Your task to perform on an android device: search for starred emails in the gmail app Image 0: 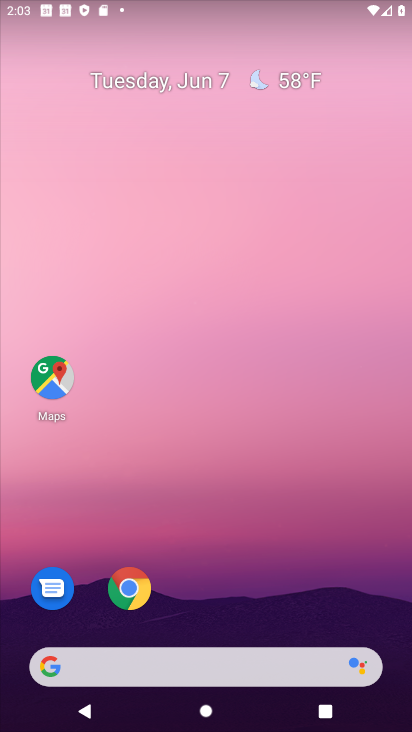
Step 0: drag from (293, 595) to (168, 179)
Your task to perform on an android device: search for starred emails in the gmail app Image 1: 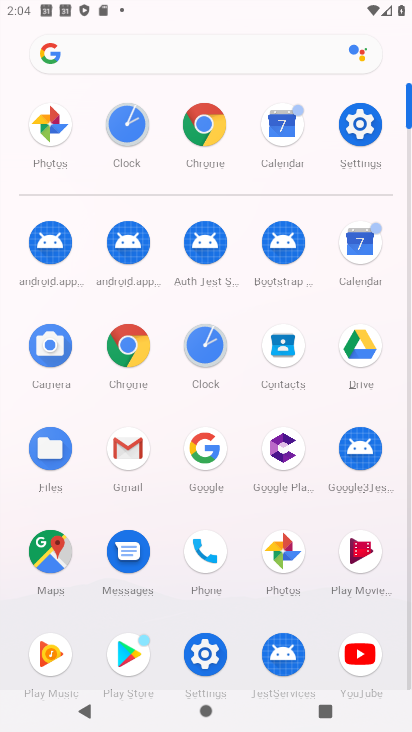
Step 1: click (149, 456)
Your task to perform on an android device: search for starred emails in the gmail app Image 2: 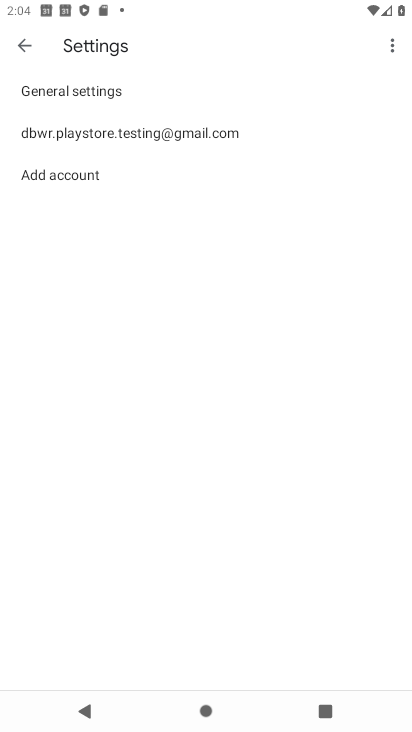
Step 2: task complete